Your task to perform on an android device: Add "asus rog" to the cart on ebay, then select checkout. Image 0: 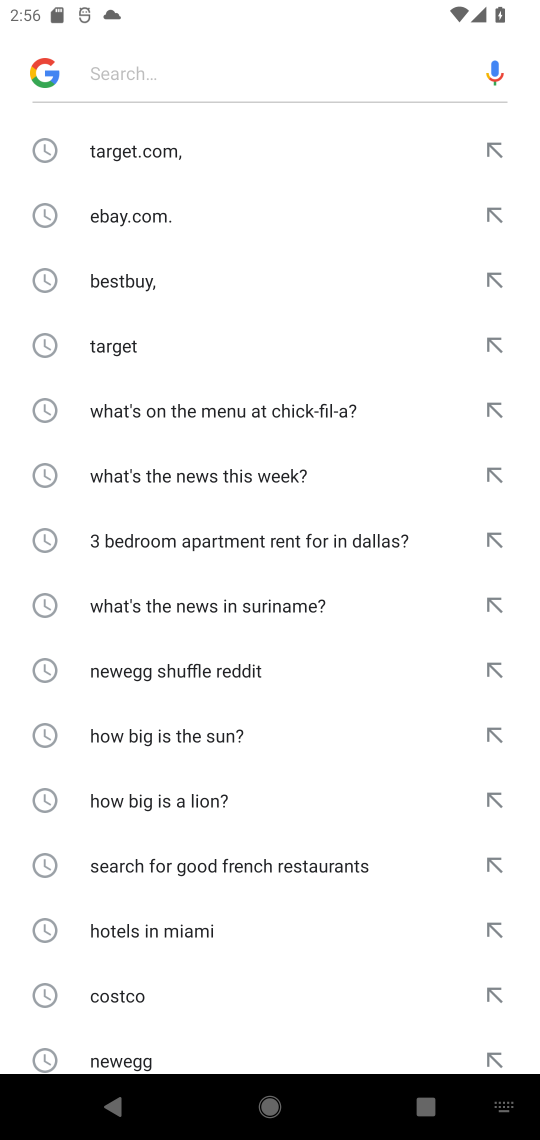
Step 0: press home button
Your task to perform on an android device: Add "asus rog" to the cart on ebay, then select checkout. Image 1: 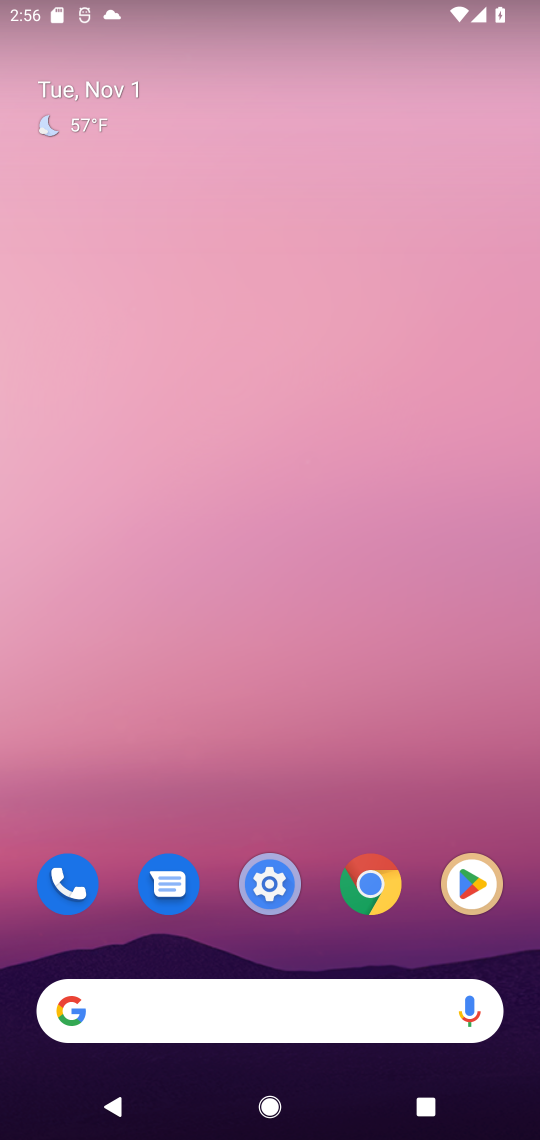
Step 1: click (105, 1006)
Your task to perform on an android device: Add "asus rog" to the cart on ebay, then select checkout. Image 2: 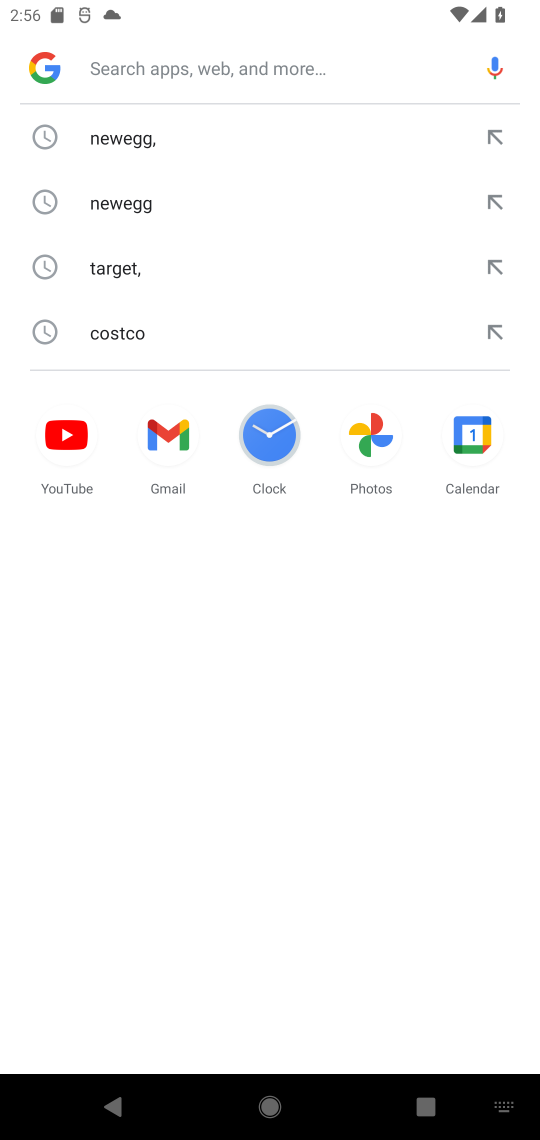
Step 2: type "ebay"
Your task to perform on an android device: Add "asus rog" to the cart on ebay, then select checkout. Image 3: 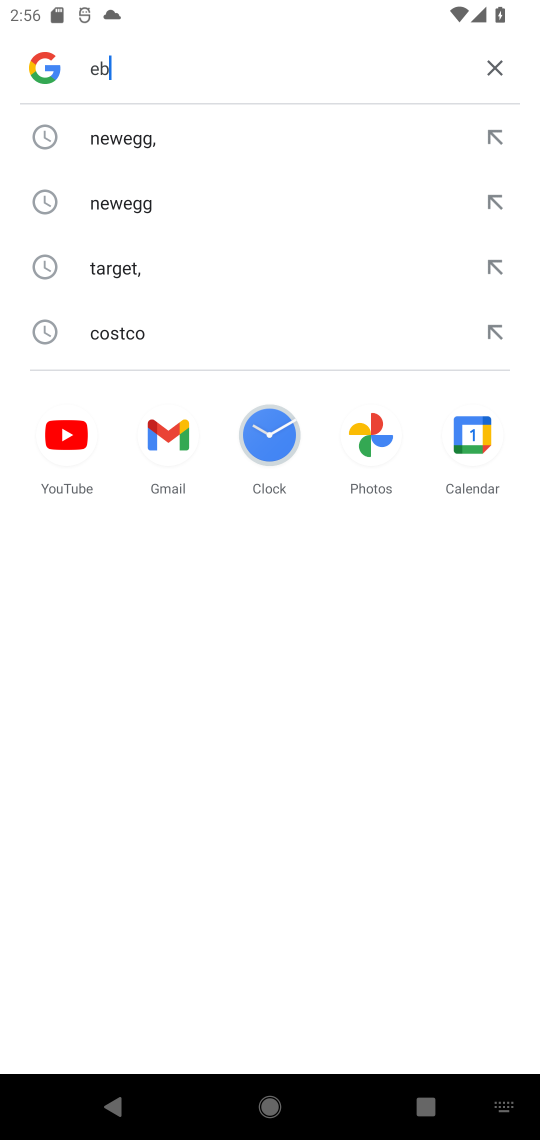
Step 3: press enter
Your task to perform on an android device: Add "asus rog" to the cart on ebay, then select checkout. Image 4: 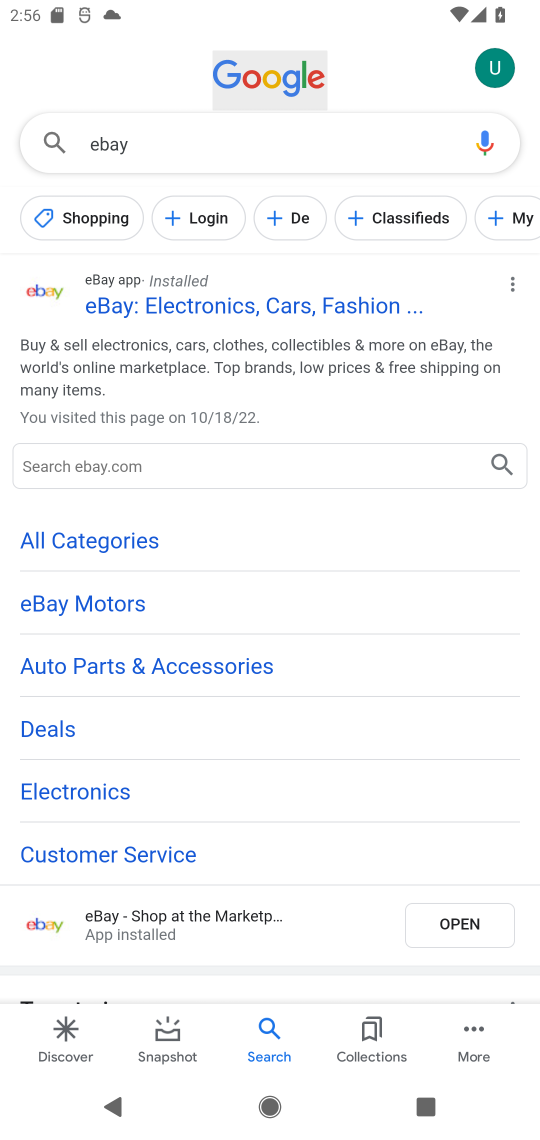
Step 4: drag from (366, 726) to (371, 554)
Your task to perform on an android device: Add "asus rog" to the cart on ebay, then select checkout. Image 5: 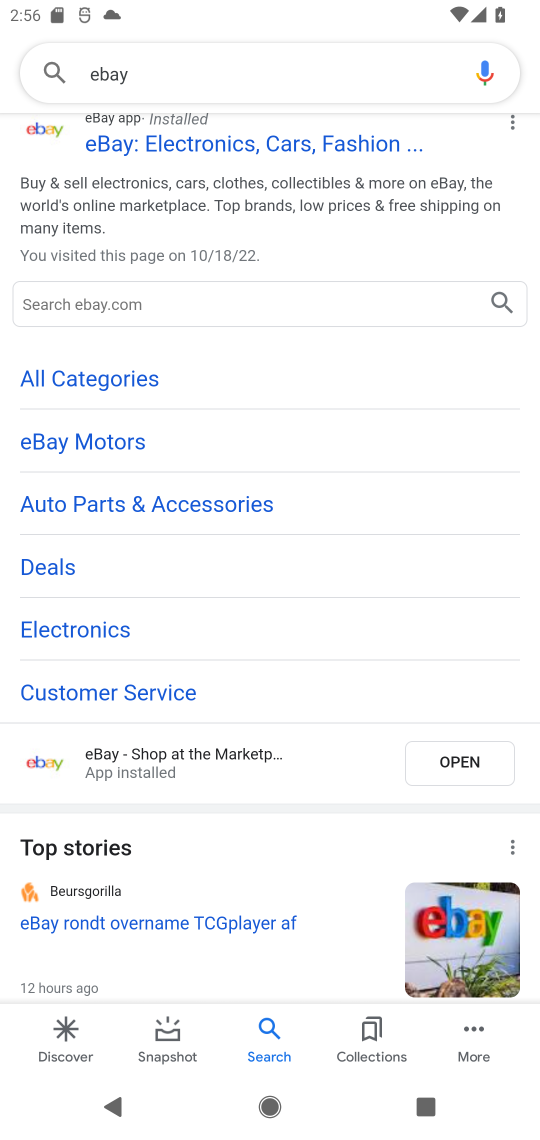
Step 5: drag from (273, 800) to (308, 430)
Your task to perform on an android device: Add "asus rog" to the cart on ebay, then select checkout. Image 6: 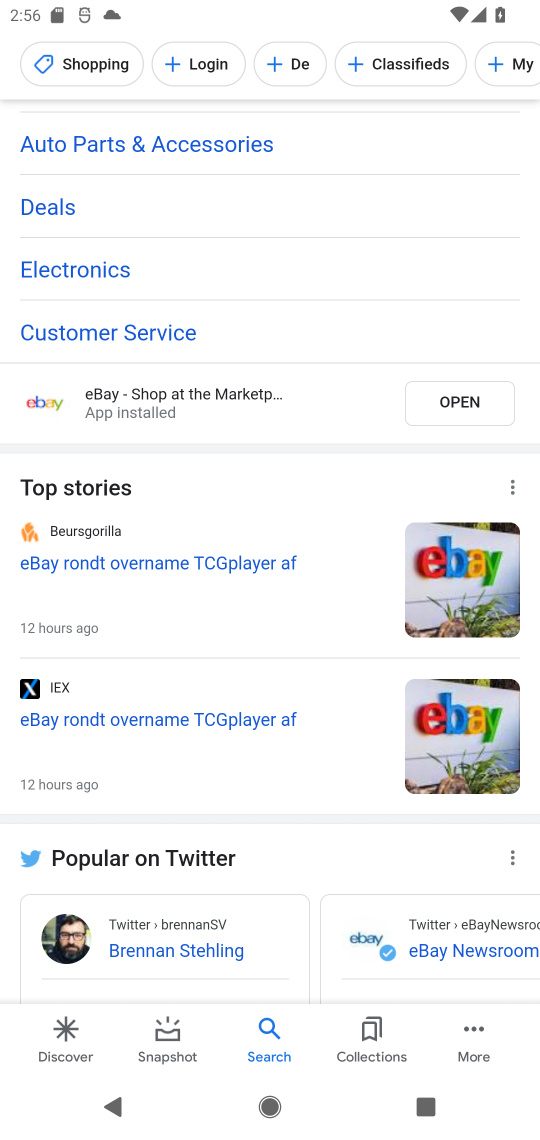
Step 6: drag from (254, 880) to (266, 544)
Your task to perform on an android device: Add "asus rog" to the cart on ebay, then select checkout. Image 7: 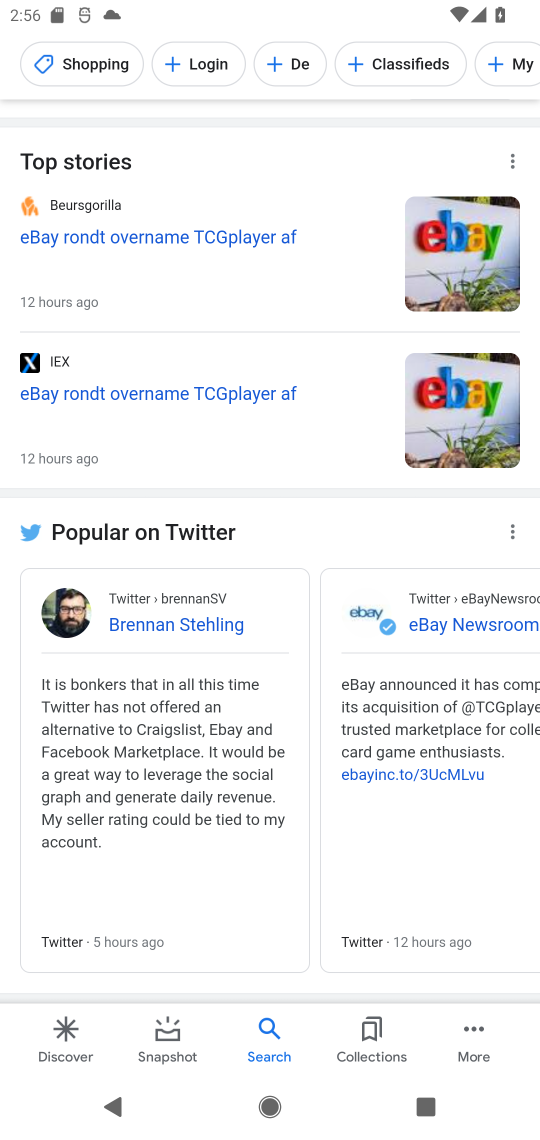
Step 7: drag from (243, 886) to (272, 521)
Your task to perform on an android device: Add "asus rog" to the cart on ebay, then select checkout. Image 8: 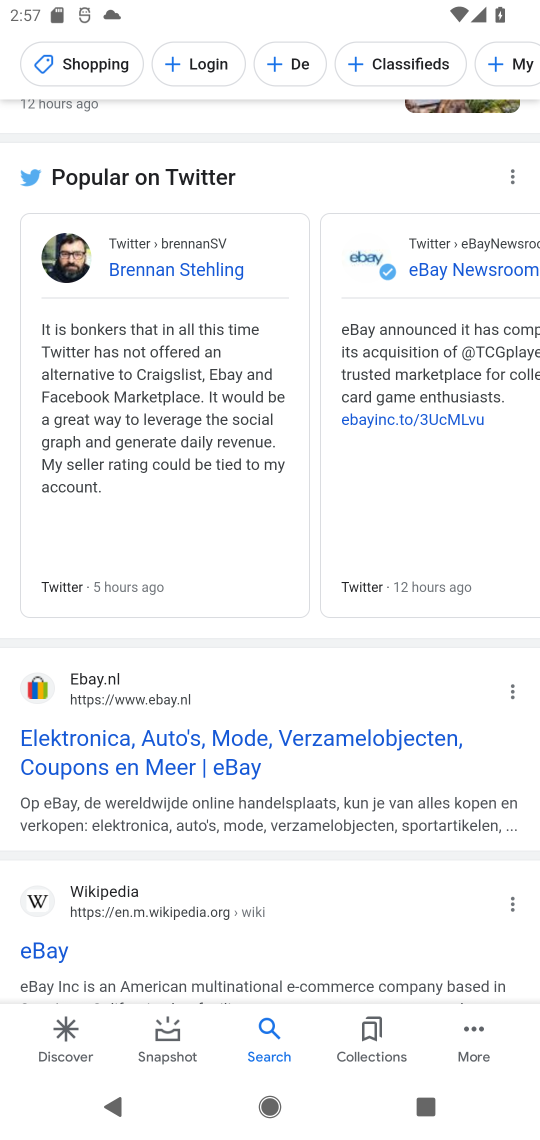
Step 8: click (121, 751)
Your task to perform on an android device: Add "asus rog" to the cart on ebay, then select checkout. Image 9: 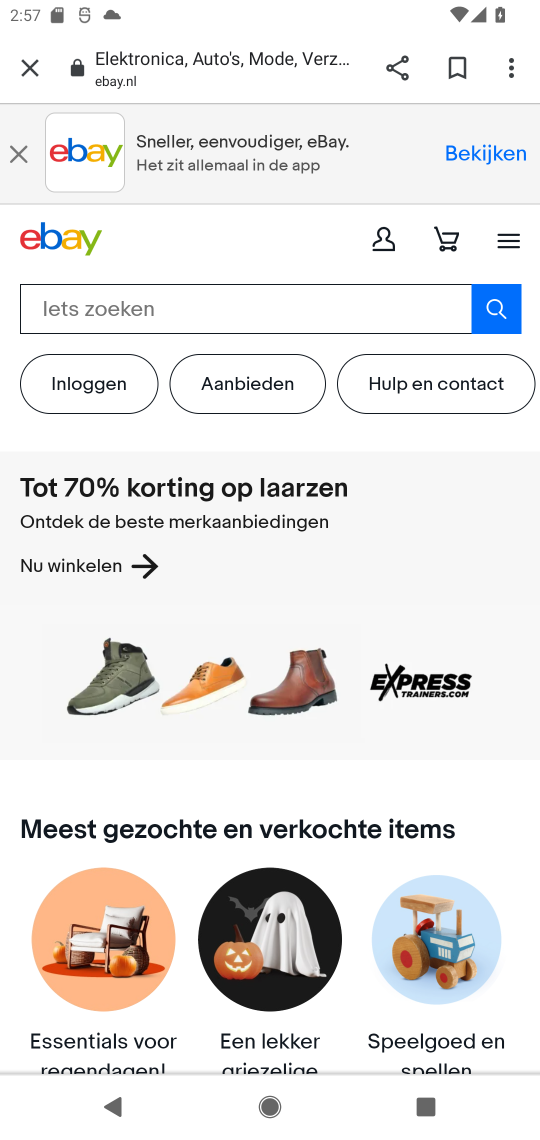
Step 9: click (133, 304)
Your task to perform on an android device: Add "asus rog" to the cart on ebay, then select checkout. Image 10: 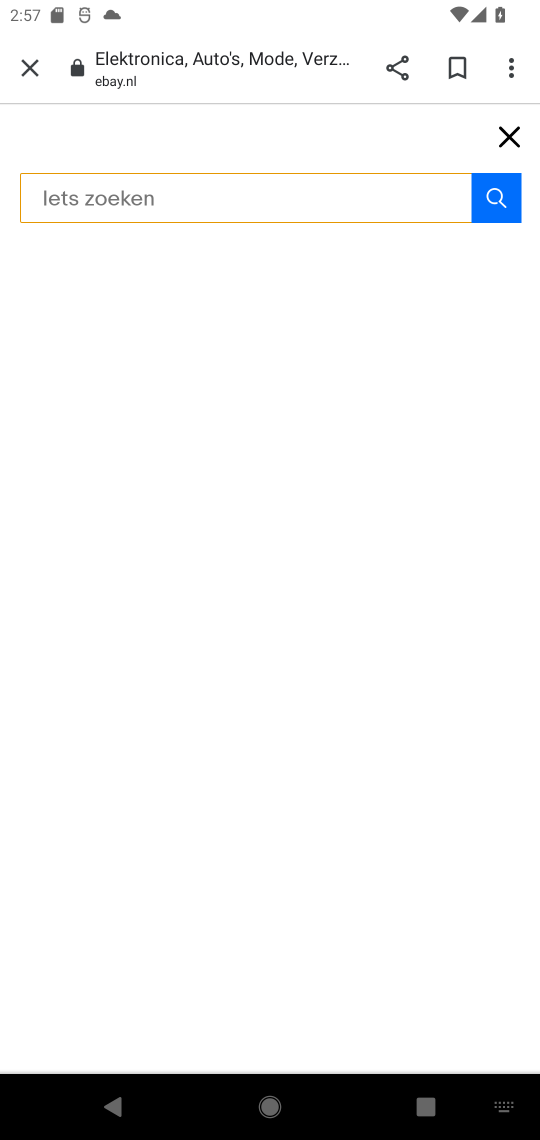
Step 10: type "asus rog"
Your task to perform on an android device: Add "asus rog" to the cart on ebay, then select checkout. Image 11: 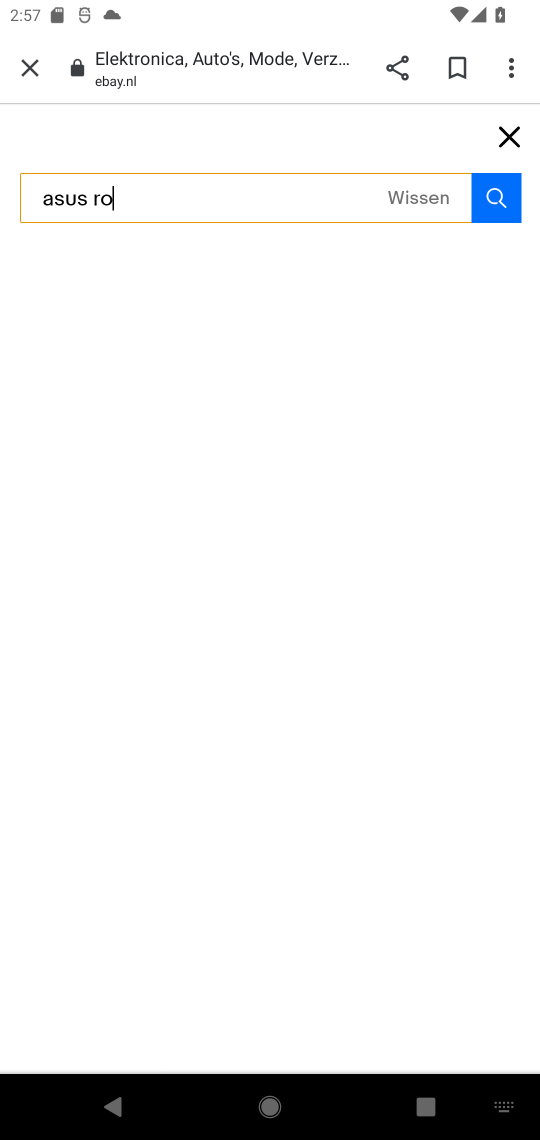
Step 11: press enter
Your task to perform on an android device: Add "asus rog" to the cart on ebay, then select checkout. Image 12: 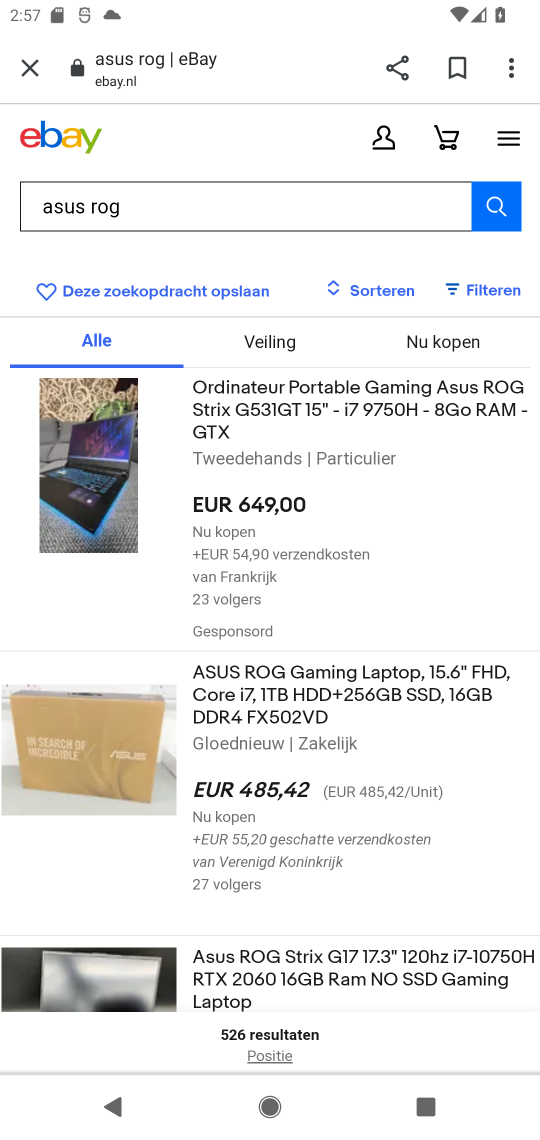
Step 12: click (315, 700)
Your task to perform on an android device: Add "asus rog" to the cart on ebay, then select checkout. Image 13: 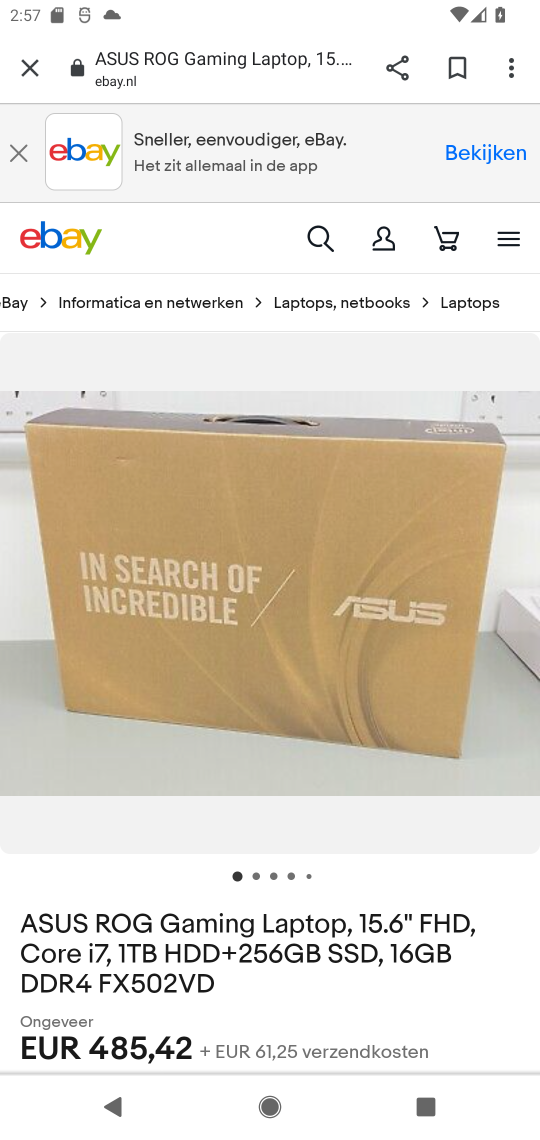
Step 13: drag from (290, 870) to (345, 498)
Your task to perform on an android device: Add "asus rog" to the cart on ebay, then select checkout. Image 14: 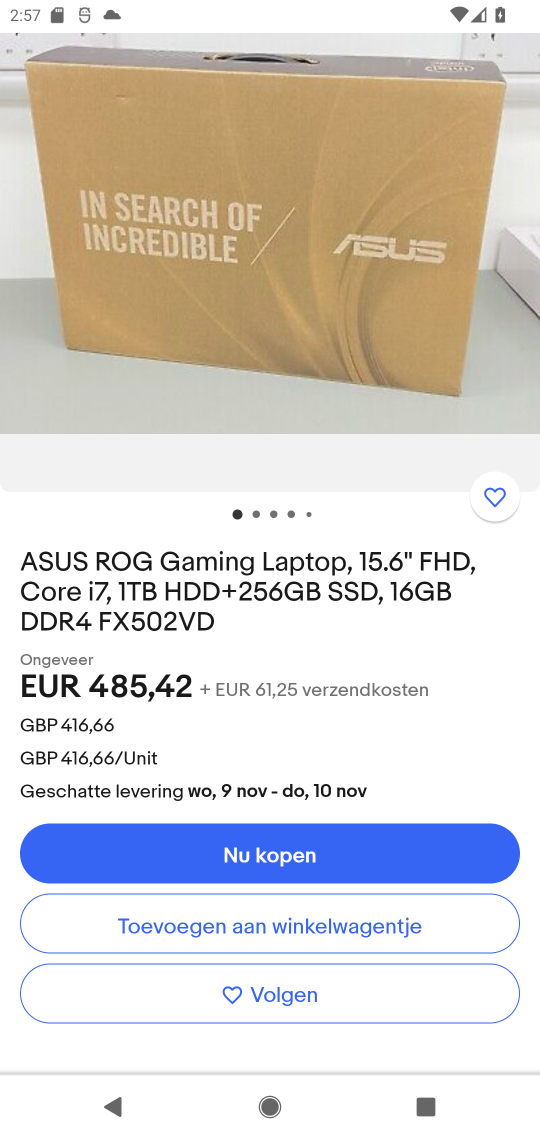
Step 14: drag from (327, 864) to (328, 503)
Your task to perform on an android device: Add "asus rog" to the cart on ebay, then select checkout. Image 15: 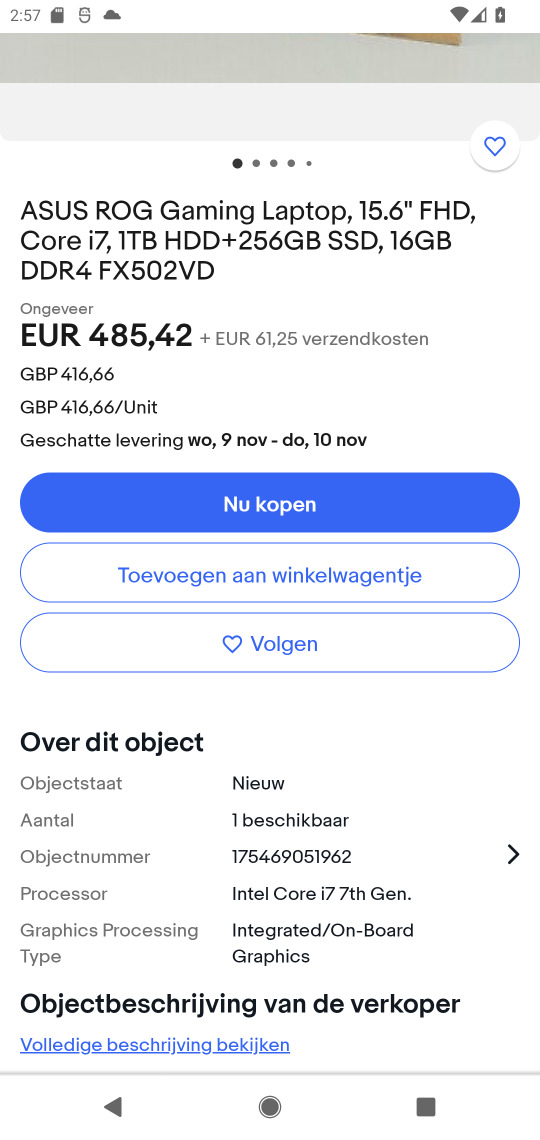
Step 15: drag from (316, 906) to (344, 371)
Your task to perform on an android device: Add "asus rog" to the cart on ebay, then select checkout. Image 16: 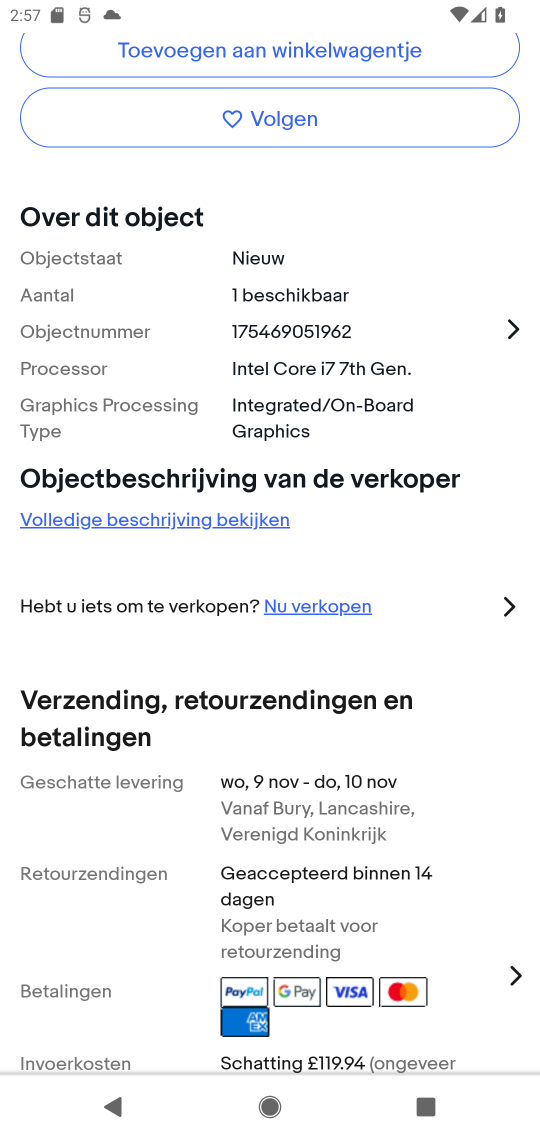
Step 16: drag from (371, 875) to (397, 242)
Your task to perform on an android device: Add "asus rog" to the cart on ebay, then select checkout. Image 17: 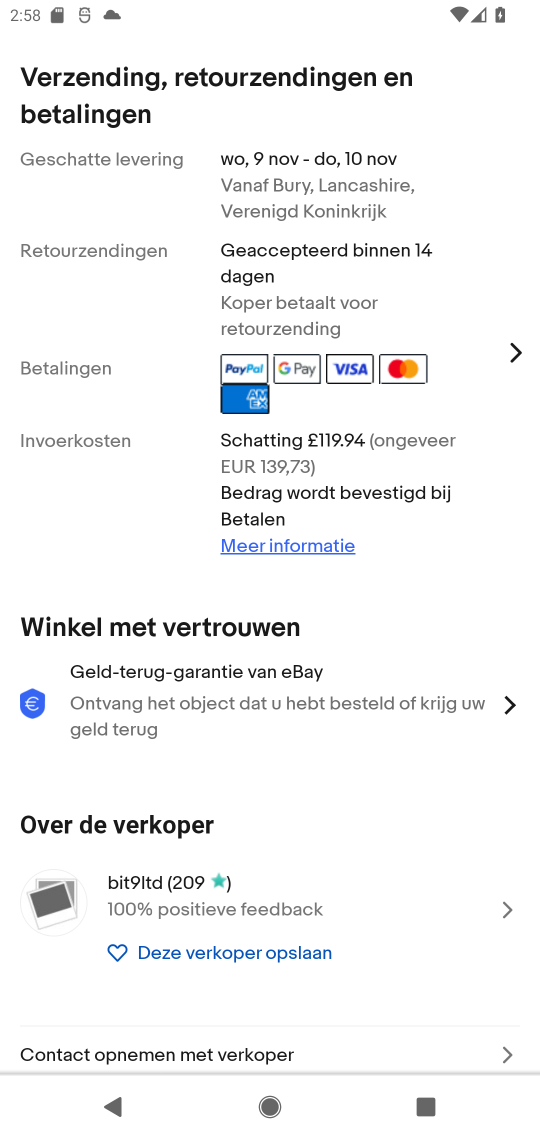
Step 17: drag from (375, 811) to (421, 320)
Your task to perform on an android device: Add "asus rog" to the cart on ebay, then select checkout. Image 18: 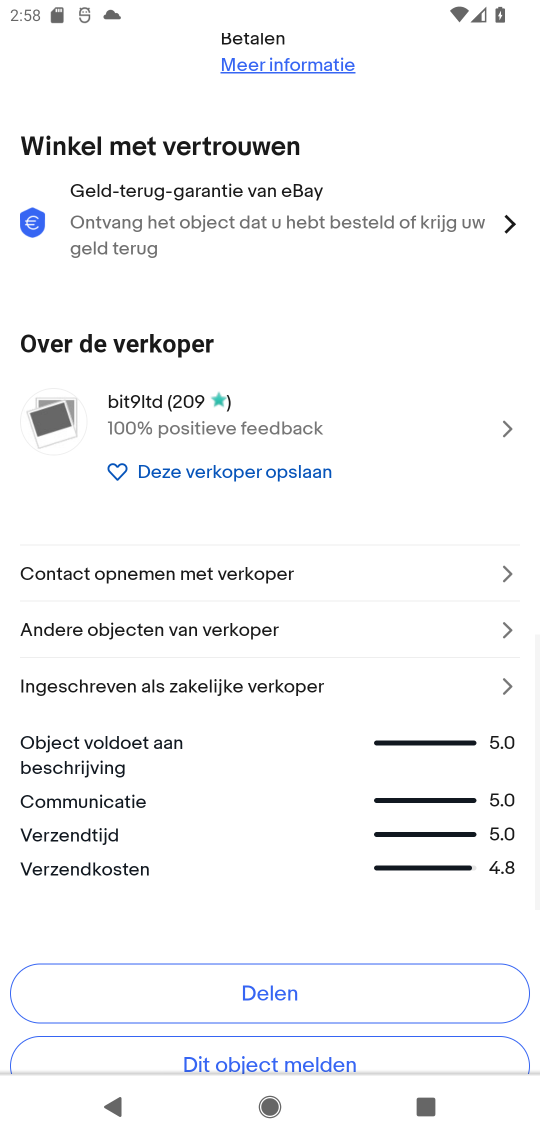
Step 18: drag from (355, 869) to (397, 358)
Your task to perform on an android device: Add "asus rog" to the cart on ebay, then select checkout. Image 19: 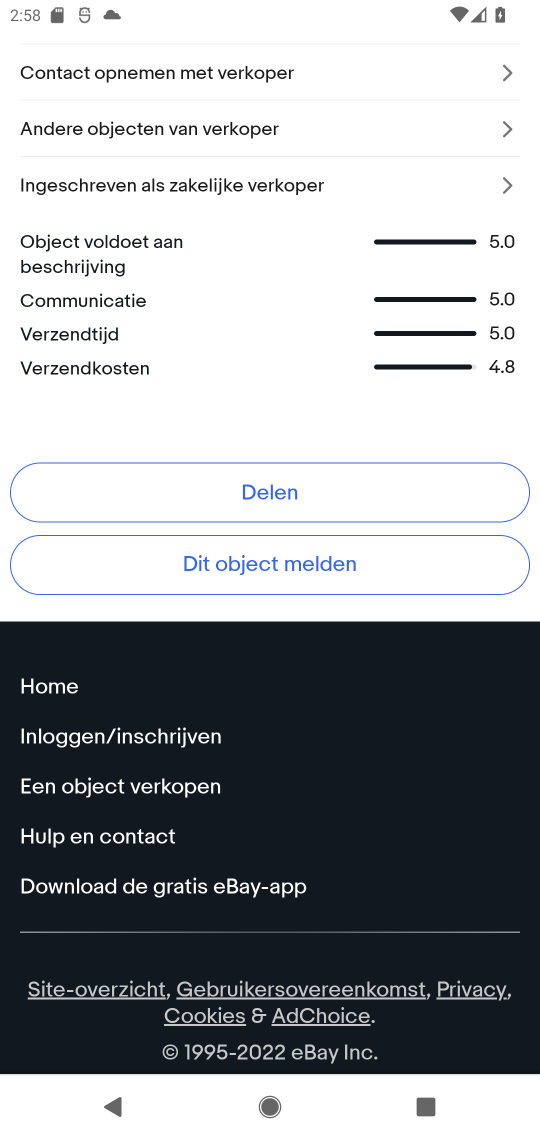
Step 19: drag from (412, 270) to (389, 891)
Your task to perform on an android device: Add "asus rog" to the cart on ebay, then select checkout. Image 20: 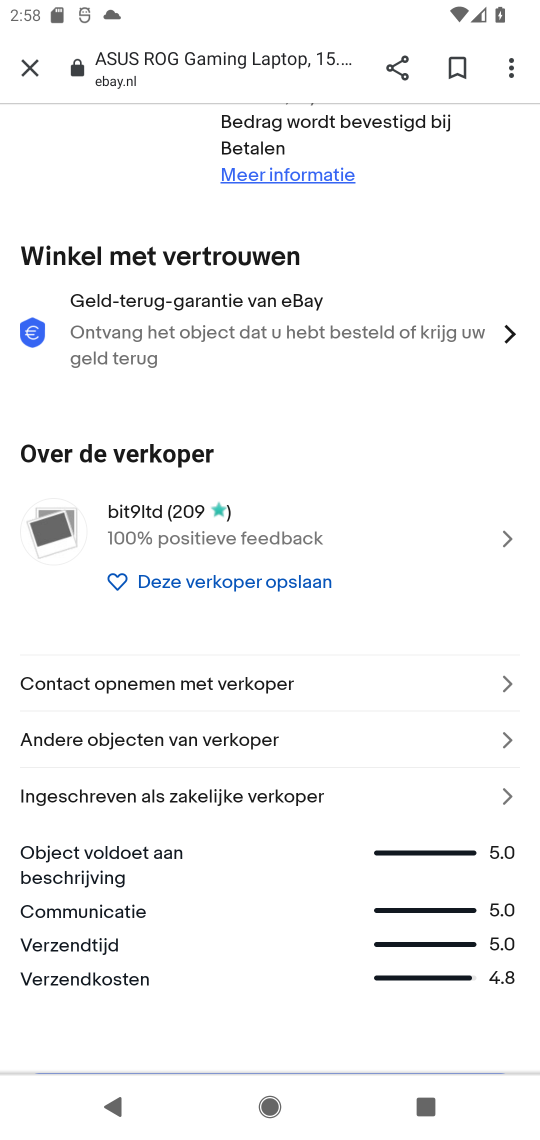
Step 20: drag from (444, 230) to (441, 807)
Your task to perform on an android device: Add "asus rog" to the cart on ebay, then select checkout. Image 21: 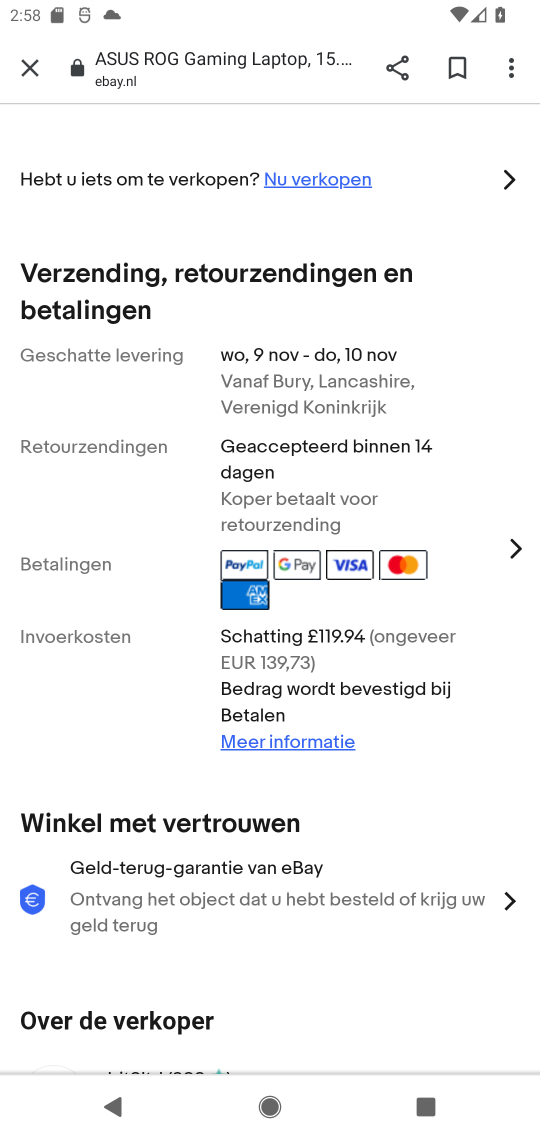
Step 21: drag from (454, 164) to (431, 739)
Your task to perform on an android device: Add "asus rog" to the cart on ebay, then select checkout. Image 22: 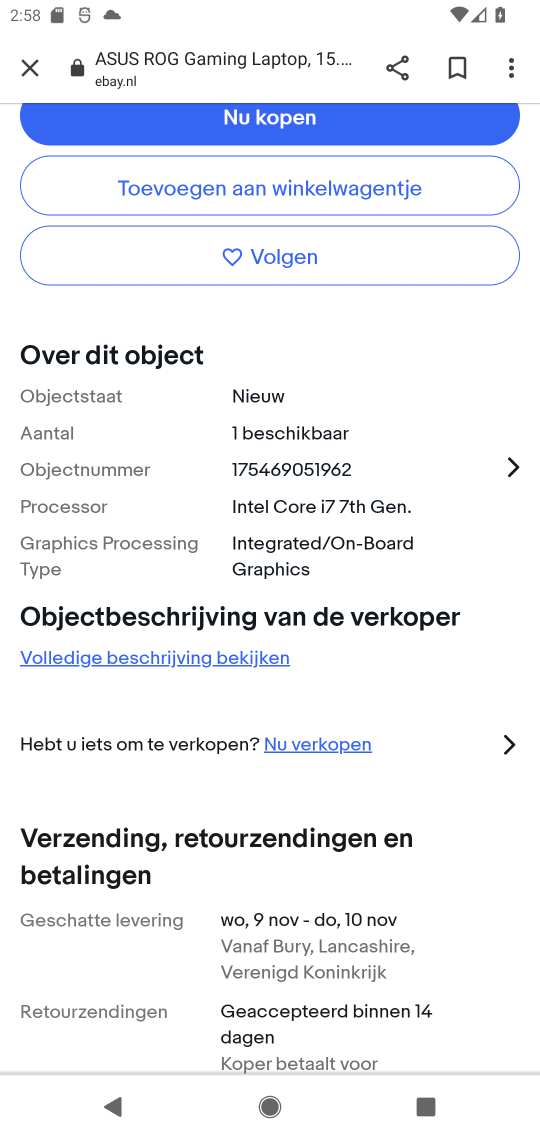
Step 22: drag from (418, 139) to (359, 776)
Your task to perform on an android device: Add "asus rog" to the cart on ebay, then select checkout. Image 23: 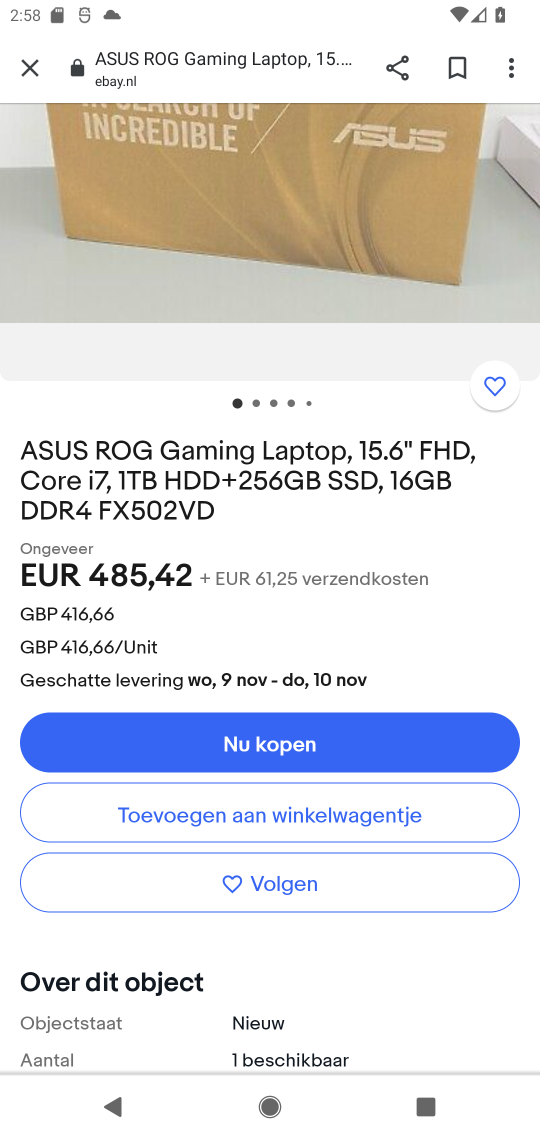
Step 23: click (250, 733)
Your task to perform on an android device: Add "asus rog" to the cart on ebay, then select checkout. Image 24: 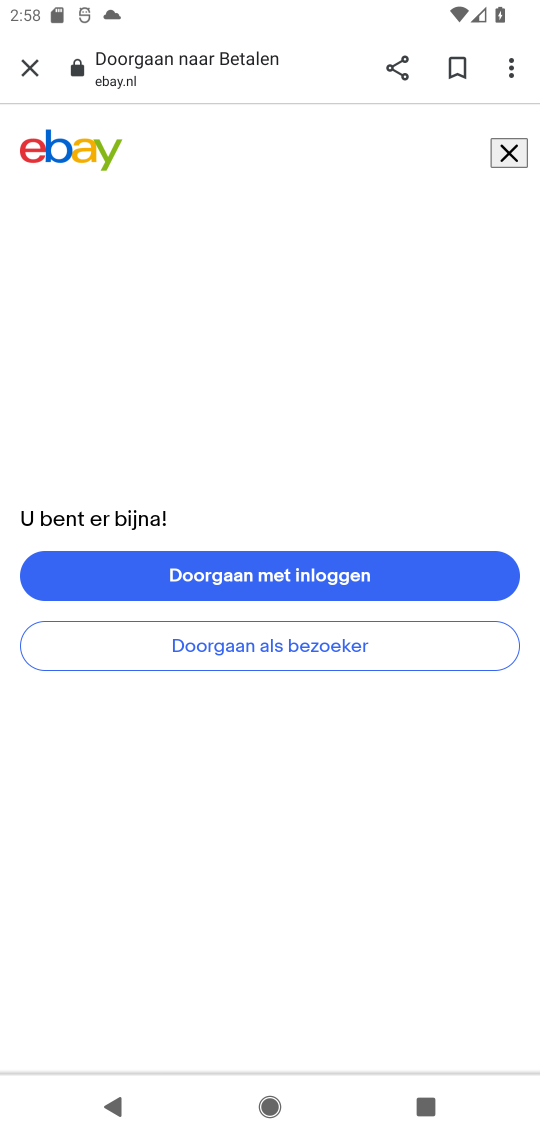
Step 24: task complete